Your task to perform on an android device: change the upload size in google photos Image 0: 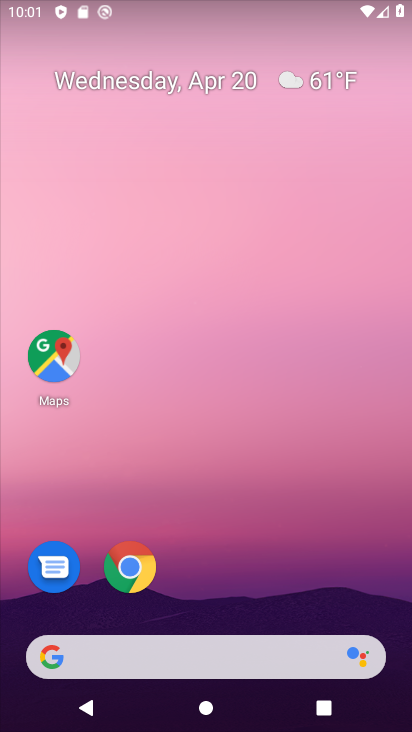
Step 0: drag from (248, 365) to (318, 80)
Your task to perform on an android device: change the upload size in google photos Image 1: 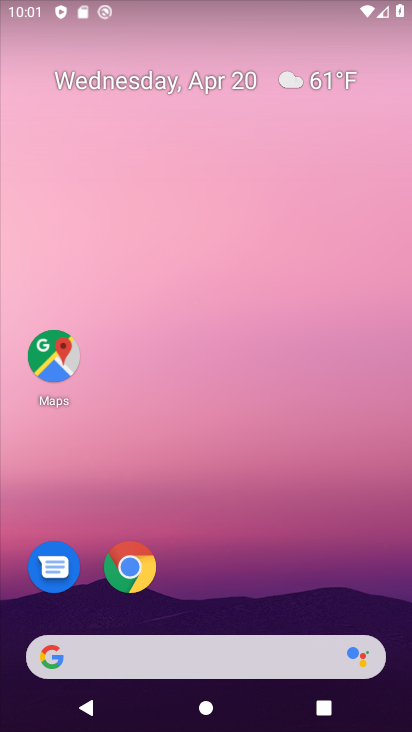
Step 1: drag from (263, 475) to (308, 74)
Your task to perform on an android device: change the upload size in google photos Image 2: 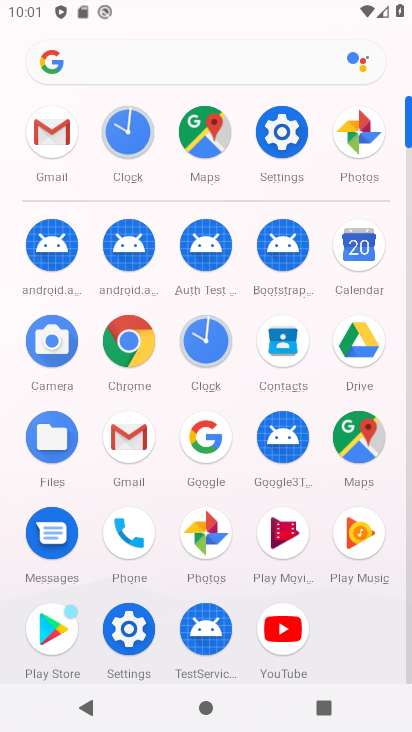
Step 2: click (209, 535)
Your task to perform on an android device: change the upload size in google photos Image 3: 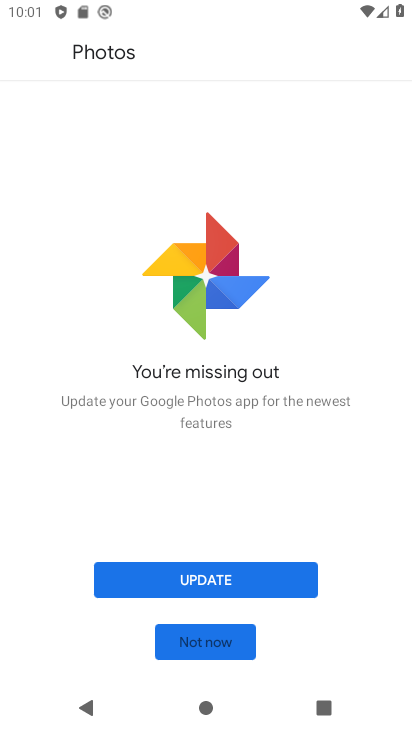
Step 3: click (188, 639)
Your task to perform on an android device: change the upload size in google photos Image 4: 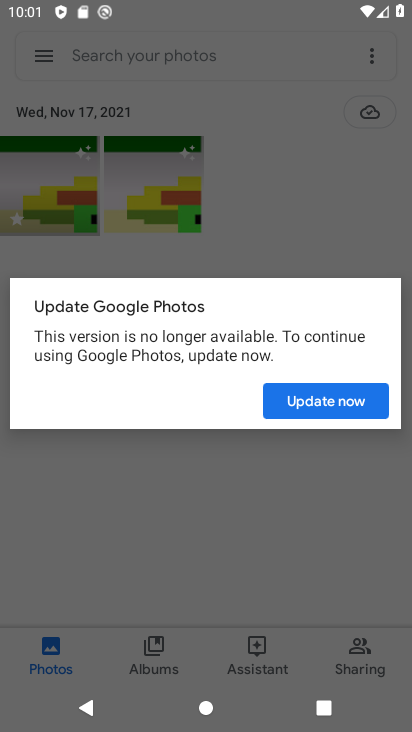
Step 4: click (235, 522)
Your task to perform on an android device: change the upload size in google photos Image 5: 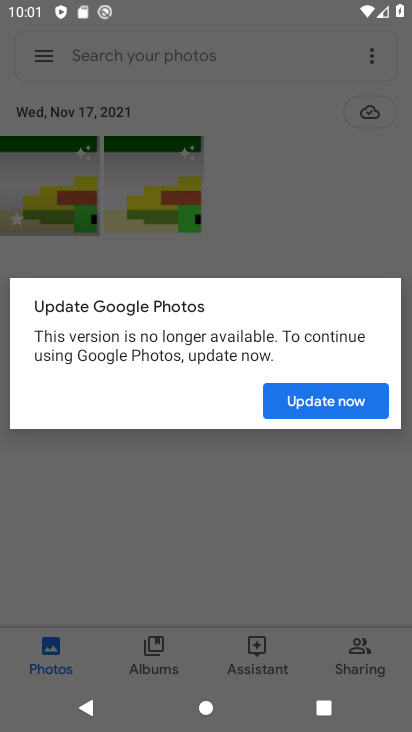
Step 5: click (319, 412)
Your task to perform on an android device: change the upload size in google photos Image 6: 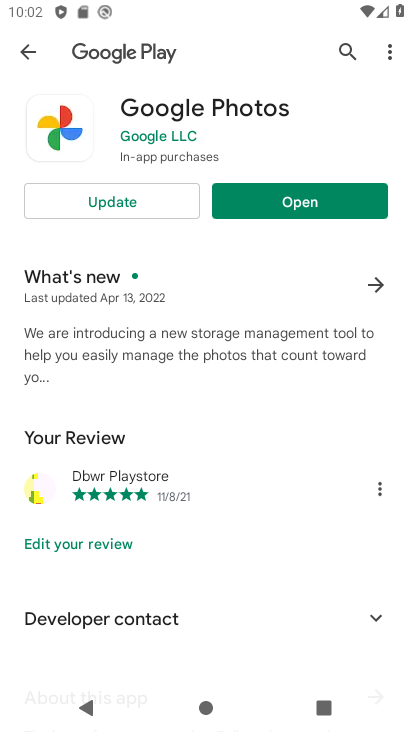
Step 6: click (255, 203)
Your task to perform on an android device: change the upload size in google photos Image 7: 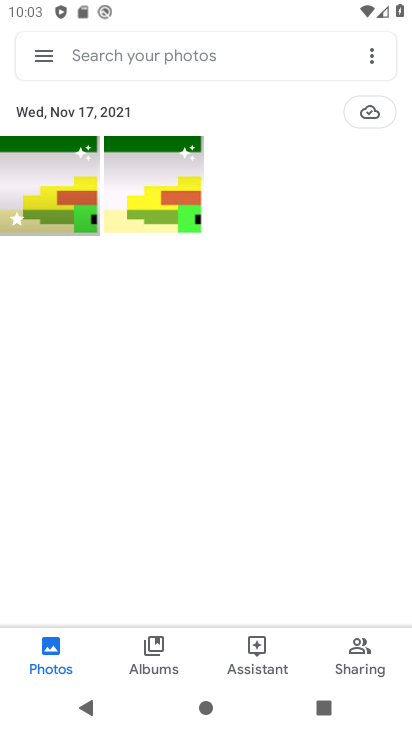
Step 7: click (40, 45)
Your task to perform on an android device: change the upload size in google photos Image 8: 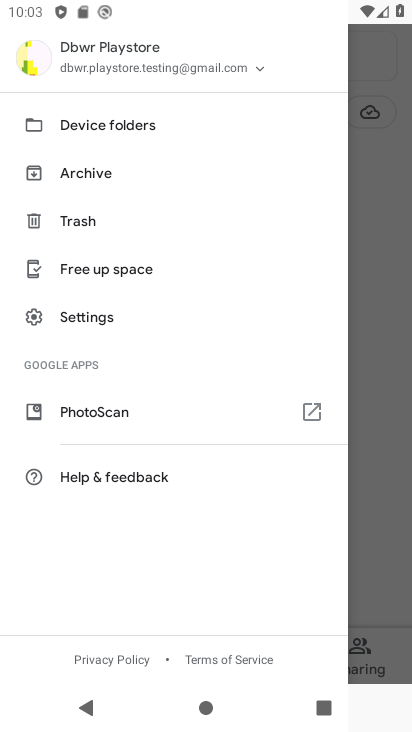
Step 8: click (85, 315)
Your task to perform on an android device: change the upload size in google photos Image 9: 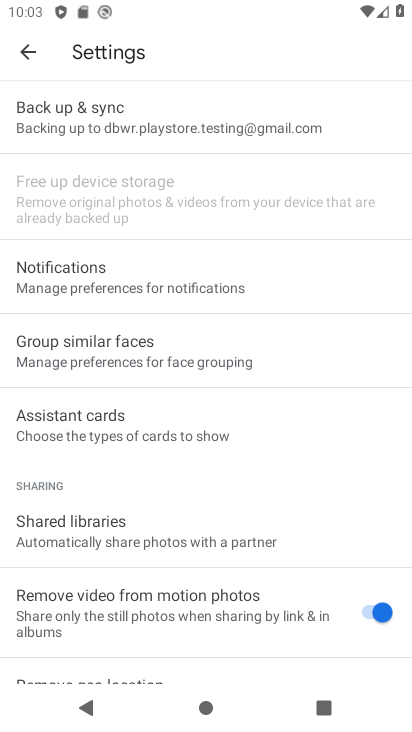
Step 9: click (119, 123)
Your task to perform on an android device: change the upload size in google photos Image 10: 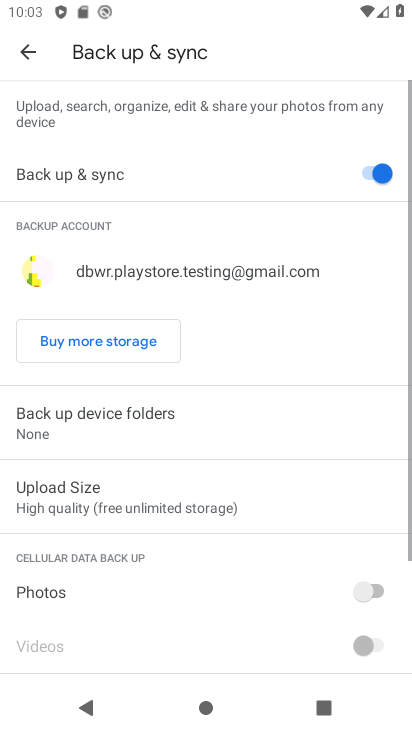
Step 10: click (117, 515)
Your task to perform on an android device: change the upload size in google photos Image 11: 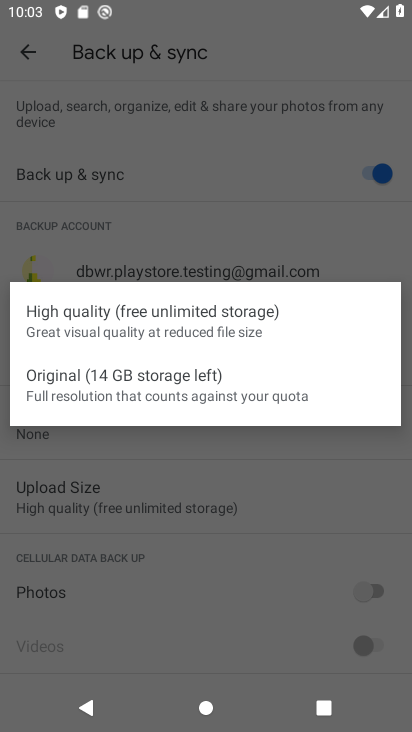
Step 11: click (172, 554)
Your task to perform on an android device: change the upload size in google photos Image 12: 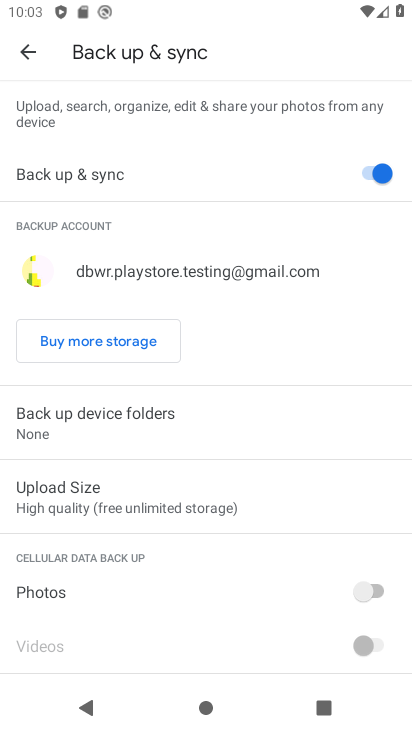
Step 12: click (103, 490)
Your task to perform on an android device: change the upload size in google photos Image 13: 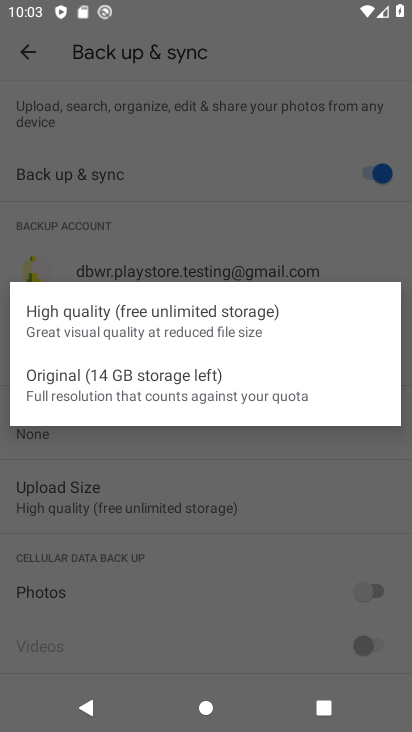
Step 13: click (117, 389)
Your task to perform on an android device: change the upload size in google photos Image 14: 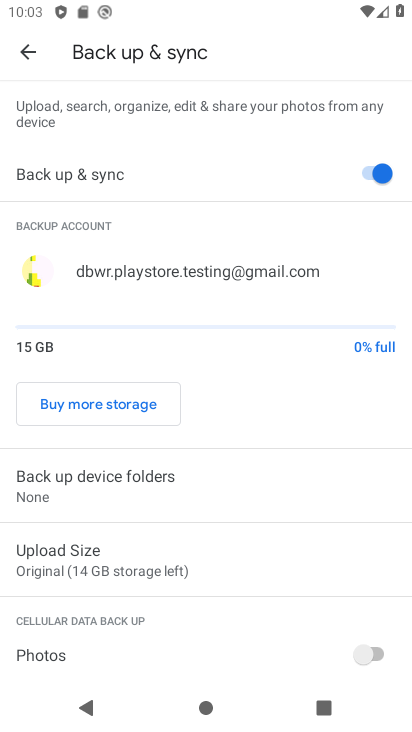
Step 14: task complete